Your task to perform on an android device: Go to eBay Image 0: 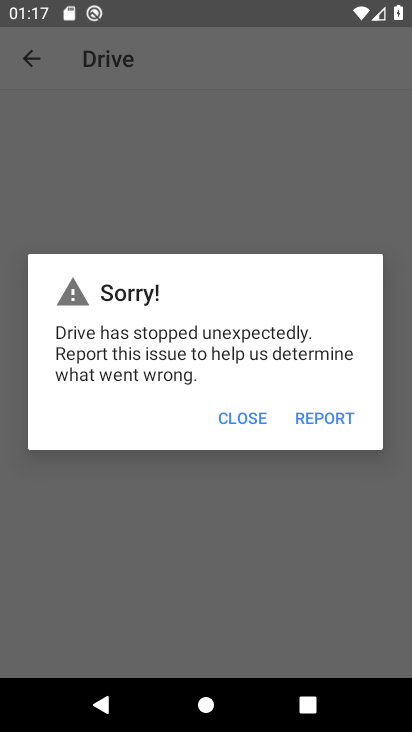
Step 0: press home button
Your task to perform on an android device: Go to eBay Image 1: 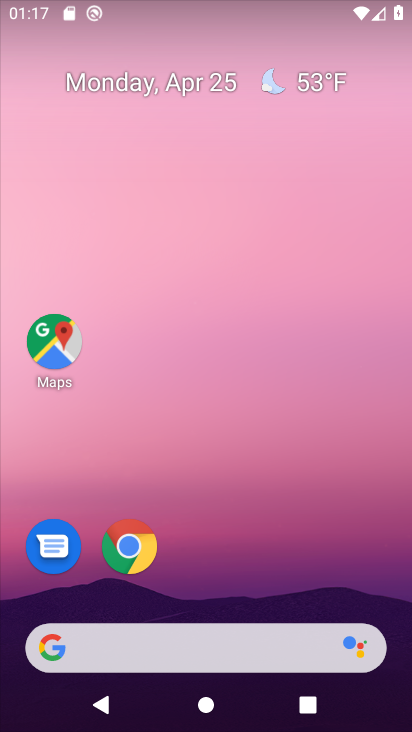
Step 1: drag from (235, 567) to (397, 119)
Your task to perform on an android device: Go to eBay Image 2: 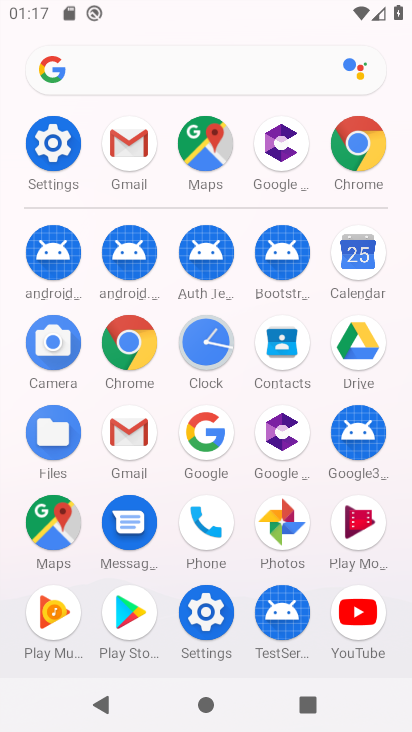
Step 2: click (125, 340)
Your task to perform on an android device: Go to eBay Image 3: 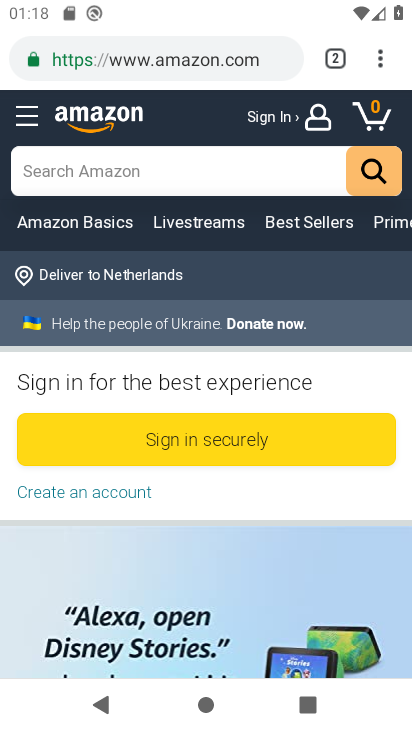
Step 3: click (371, 52)
Your task to perform on an android device: Go to eBay Image 4: 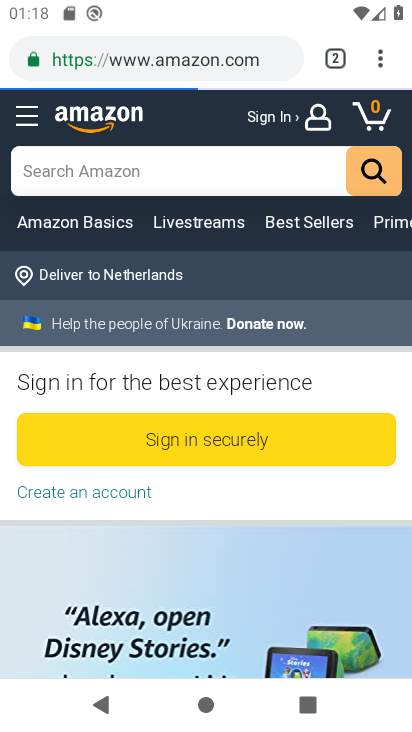
Step 4: drag from (371, 52) to (240, 185)
Your task to perform on an android device: Go to eBay Image 5: 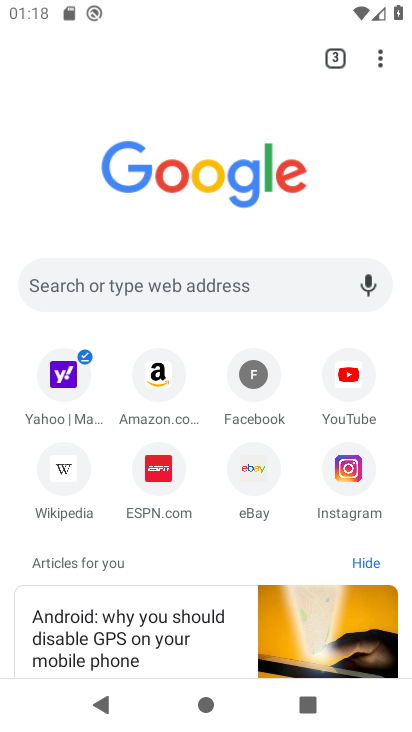
Step 5: click (279, 477)
Your task to perform on an android device: Go to eBay Image 6: 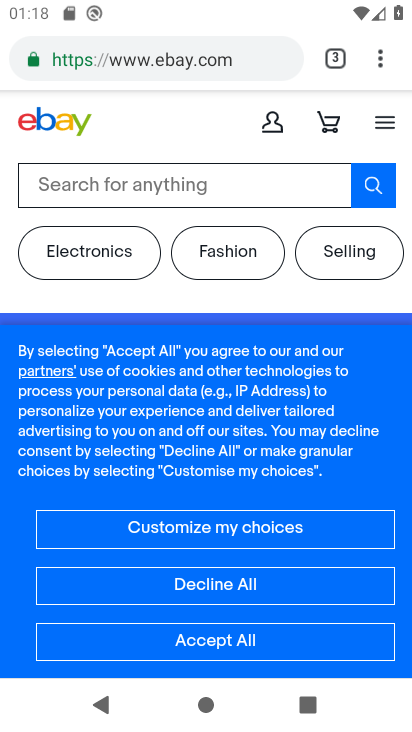
Step 6: task complete